Your task to perform on an android device: empty trash in the gmail app Image 0: 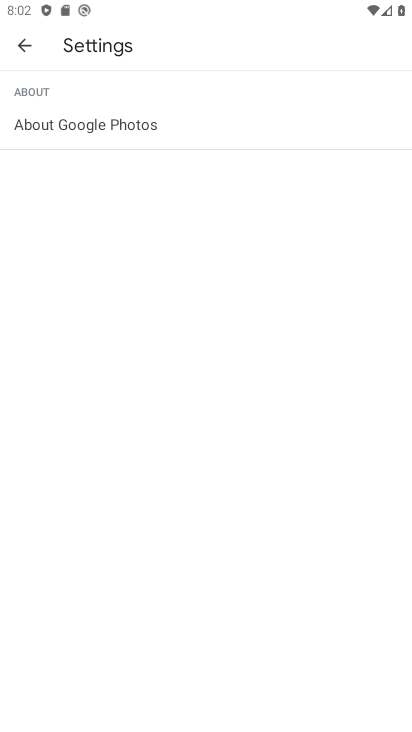
Step 0: press home button
Your task to perform on an android device: empty trash in the gmail app Image 1: 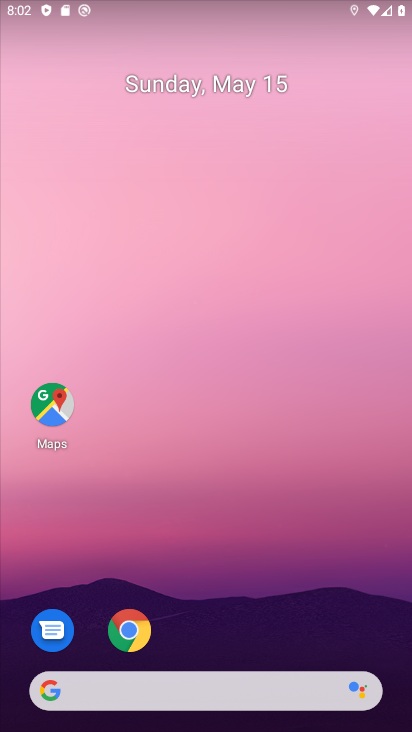
Step 1: drag from (214, 653) to (247, 44)
Your task to perform on an android device: empty trash in the gmail app Image 2: 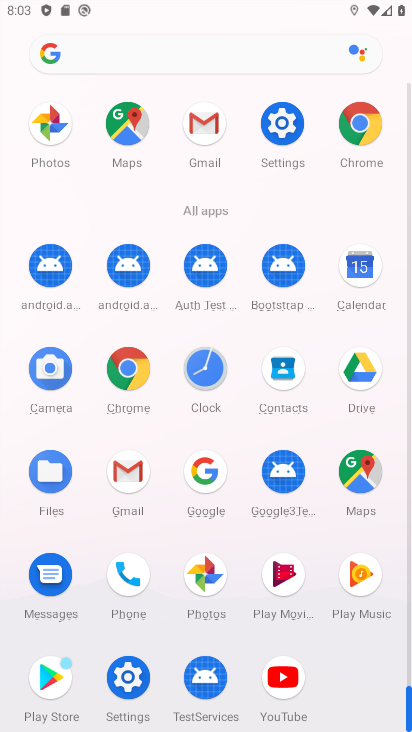
Step 2: click (116, 466)
Your task to perform on an android device: empty trash in the gmail app Image 3: 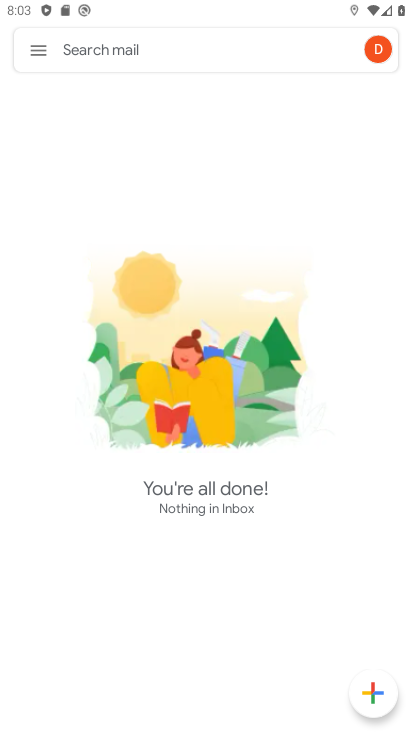
Step 3: click (33, 55)
Your task to perform on an android device: empty trash in the gmail app Image 4: 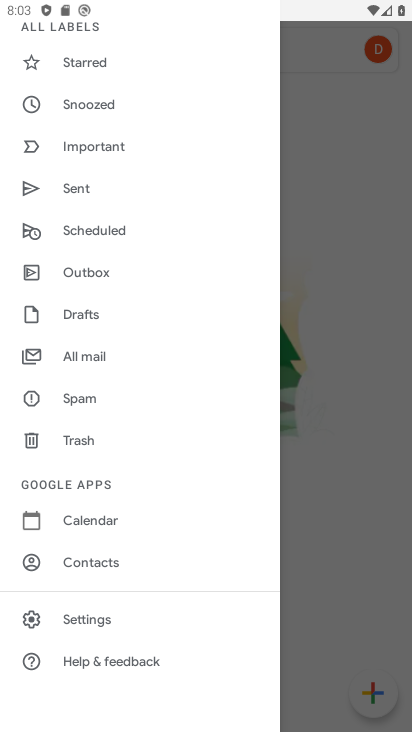
Step 4: click (79, 437)
Your task to perform on an android device: empty trash in the gmail app Image 5: 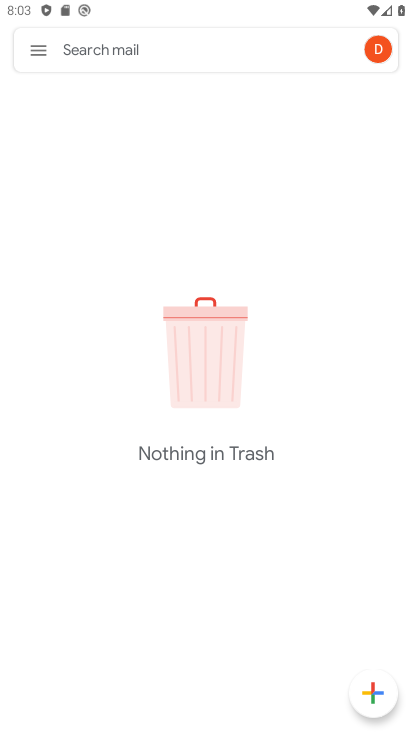
Step 5: click (33, 51)
Your task to perform on an android device: empty trash in the gmail app Image 6: 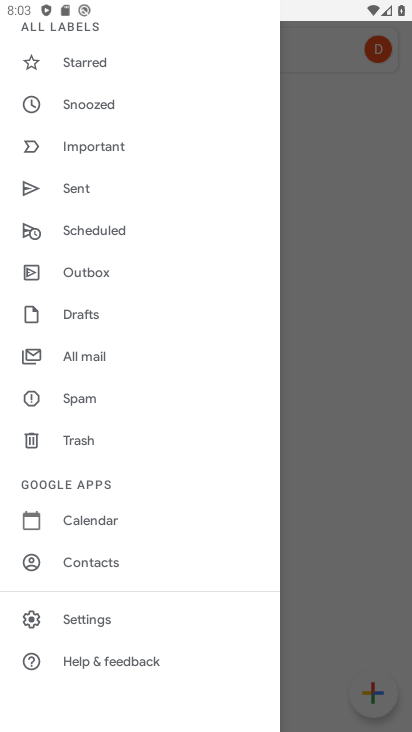
Step 6: task complete